Your task to perform on an android device: Check the weather Image 0: 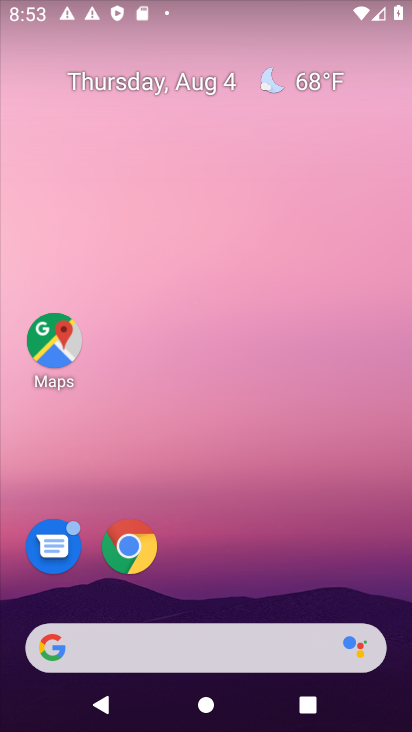
Step 0: press home button
Your task to perform on an android device: Check the weather Image 1: 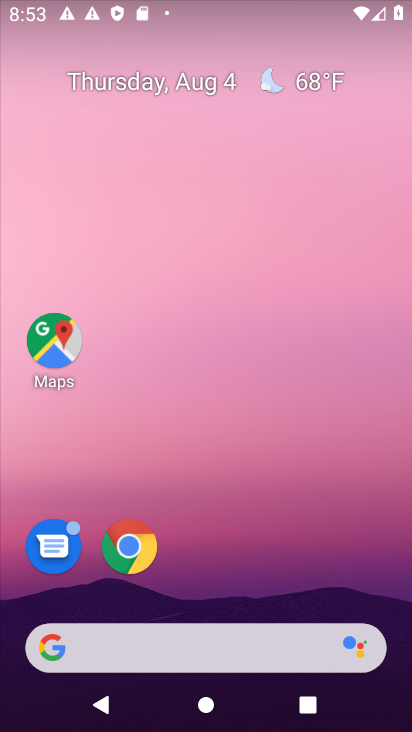
Step 1: press home button
Your task to perform on an android device: Check the weather Image 2: 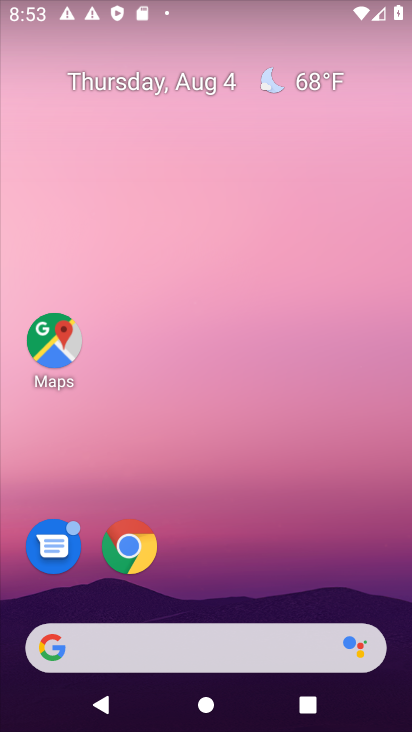
Step 2: click (58, 655)
Your task to perform on an android device: Check the weather Image 3: 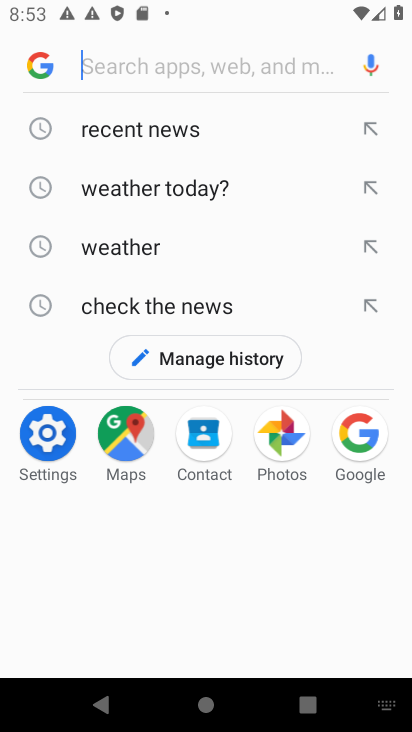
Step 3: click (108, 253)
Your task to perform on an android device: Check the weather Image 4: 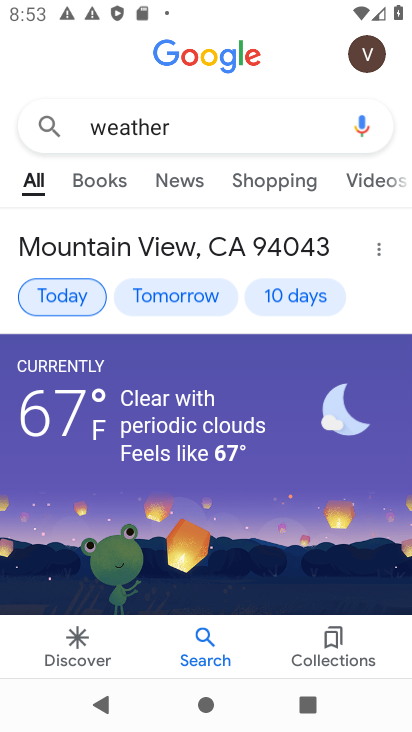
Step 4: task complete